Your task to perform on an android device: Add usb-a to usb-b to the cart on target.com, then select checkout. Image 0: 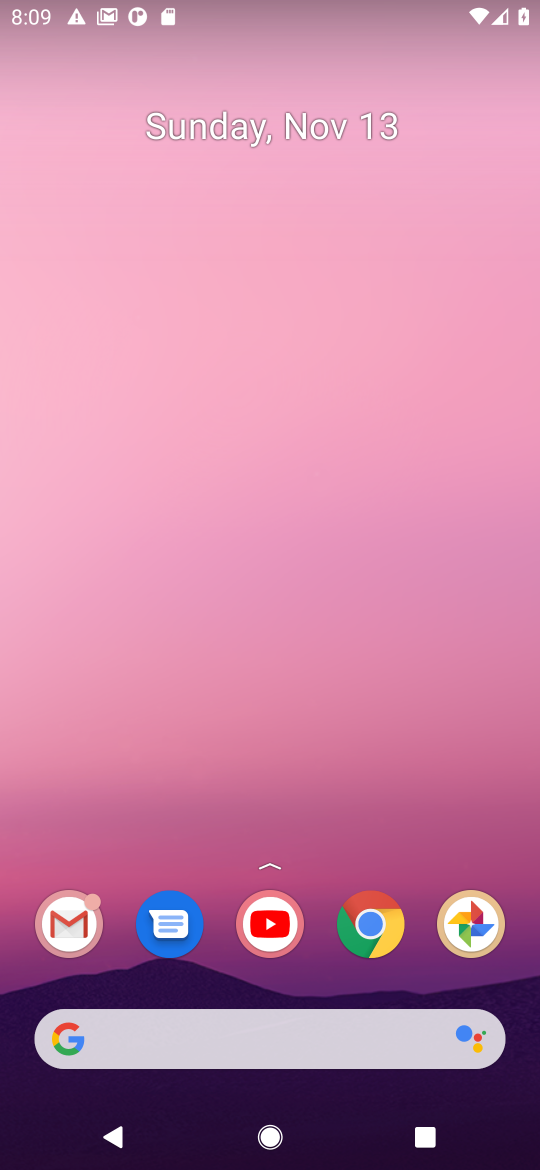
Step 0: click (377, 936)
Your task to perform on an android device: Add usb-a to usb-b to the cart on target.com, then select checkout. Image 1: 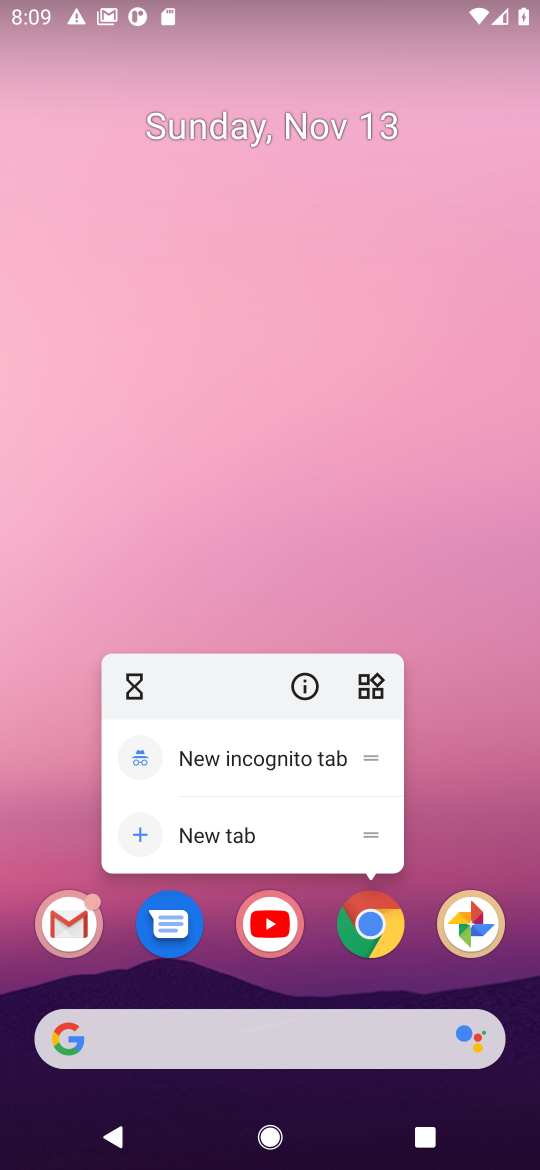
Step 1: click (365, 932)
Your task to perform on an android device: Add usb-a to usb-b to the cart on target.com, then select checkout. Image 2: 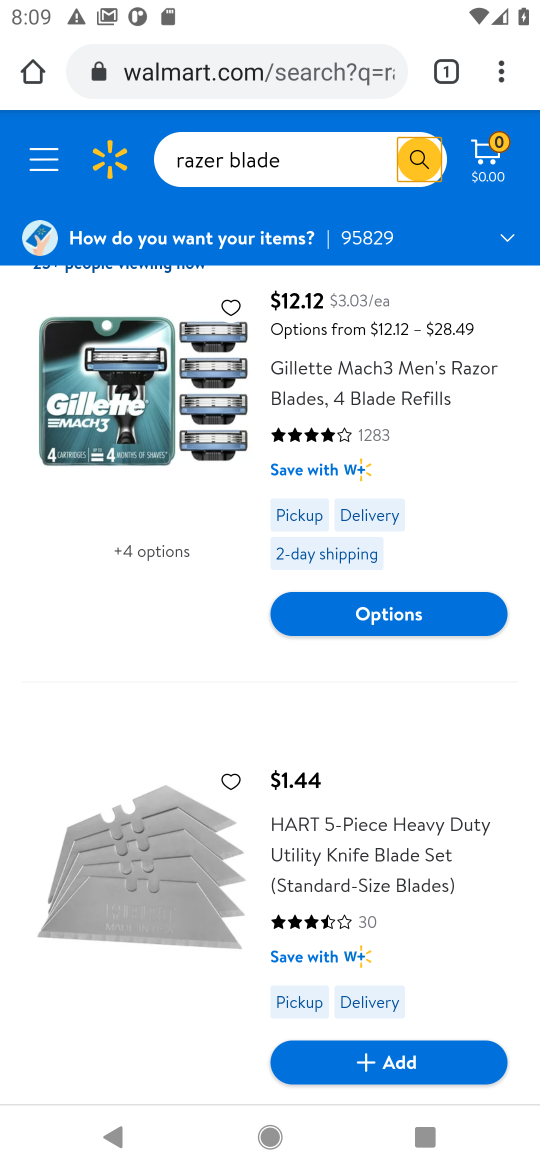
Step 2: click (281, 52)
Your task to perform on an android device: Add usb-a to usb-b to the cart on target.com, then select checkout. Image 3: 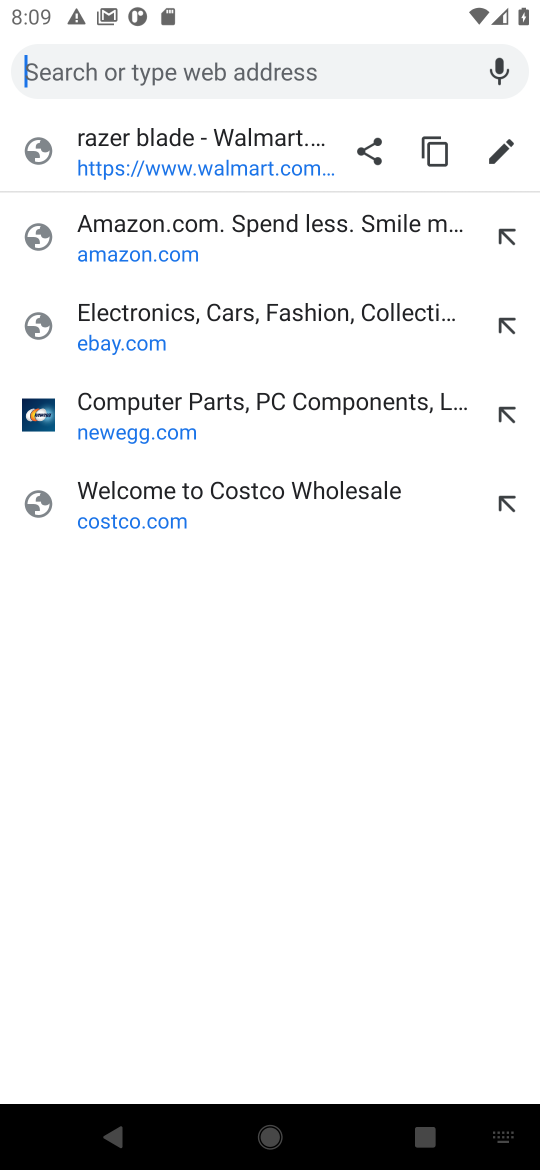
Step 3: type "target.com"
Your task to perform on an android device: Add usb-a to usb-b to the cart on target.com, then select checkout. Image 4: 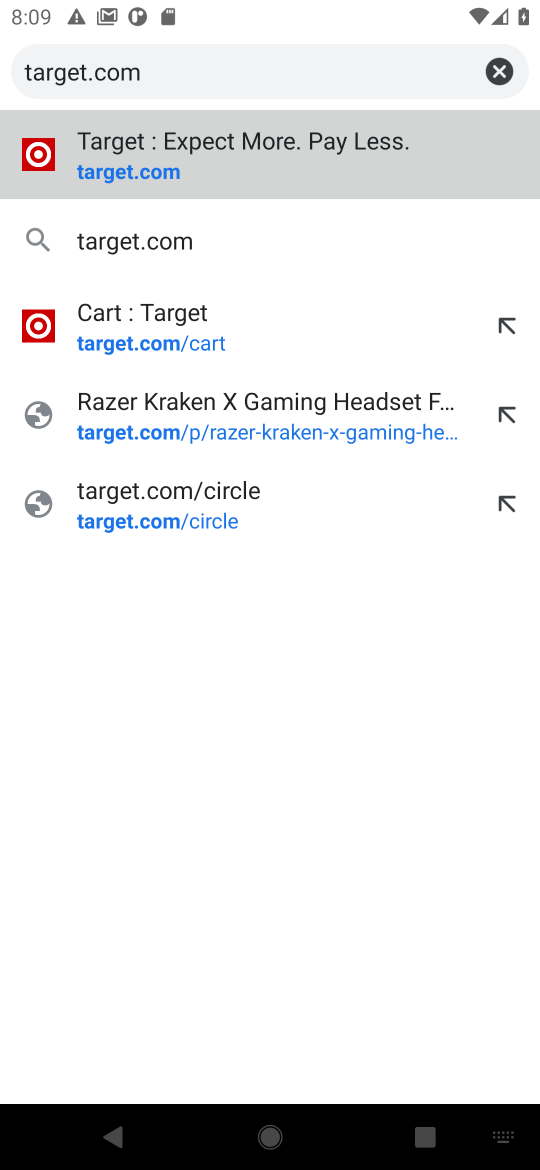
Step 4: click (140, 171)
Your task to perform on an android device: Add usb-a to usb-b to the cart on target.com, then select checkout. Image 5: 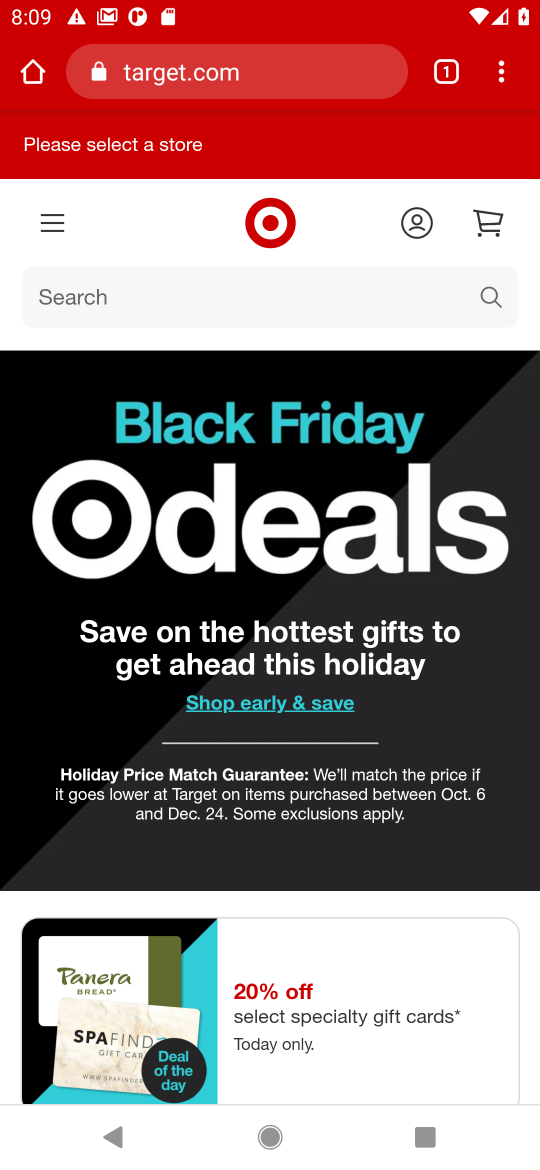
Step 5: click (493, 307)
Your task to perform on an android device: Add usb-a to usb-b to the cart on target.com, then select checkout. Image 6: 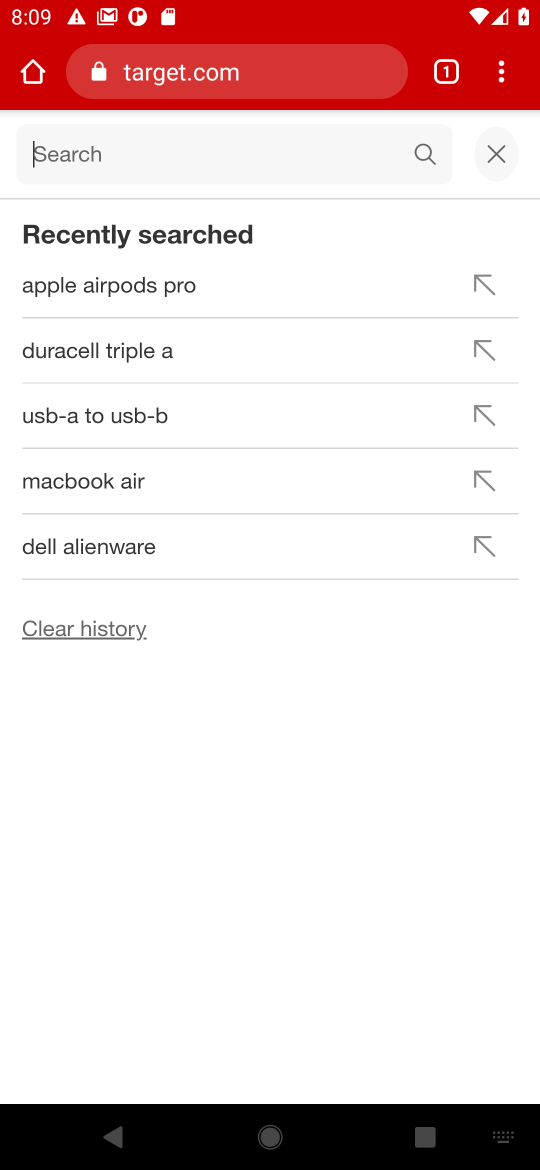
Step 6: type " usb-a to usb-b"
Your task to perform on an android device: Add usb-a to usb-b to the cart on target.com, then select checkout. Image 7: 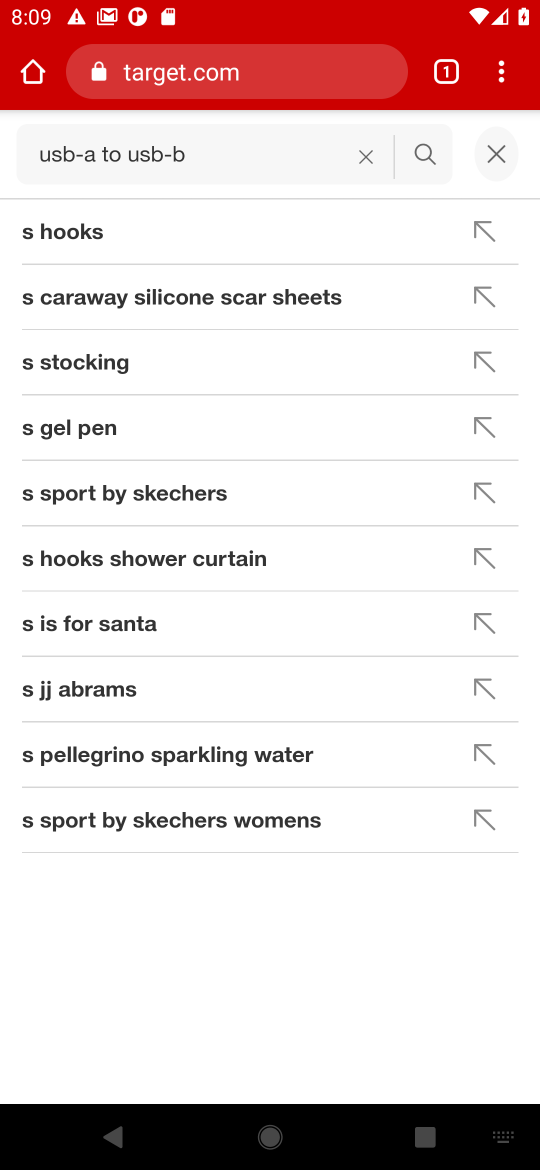
Step 7: click (416, 156)
Your task to perform on an android device: Add usb-a to usb-b to the cart on target.com, then select checkout. Image 8: 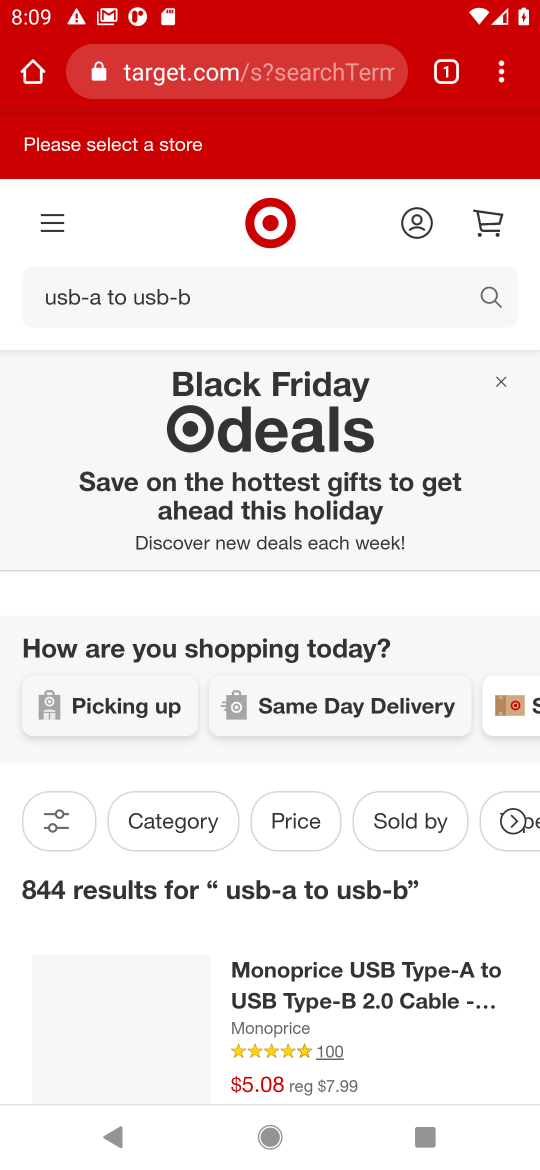
Step 8: drag from (186, 883) to (234, 333)
Your task to perform on an android device: Add usb-a to usb-b to the cart on target.com, then select checkout. Image 9: 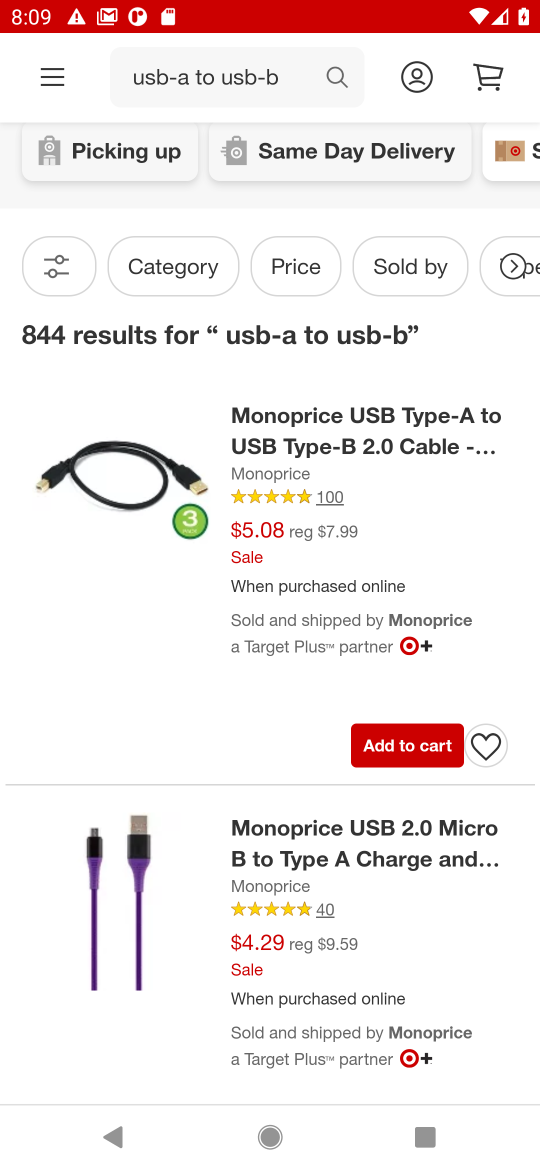
Step 9: click (400, 744)
Your task to perform on an android device: Add usb-a to usb-b to the cart on target.com, then select checkout. Image 10: 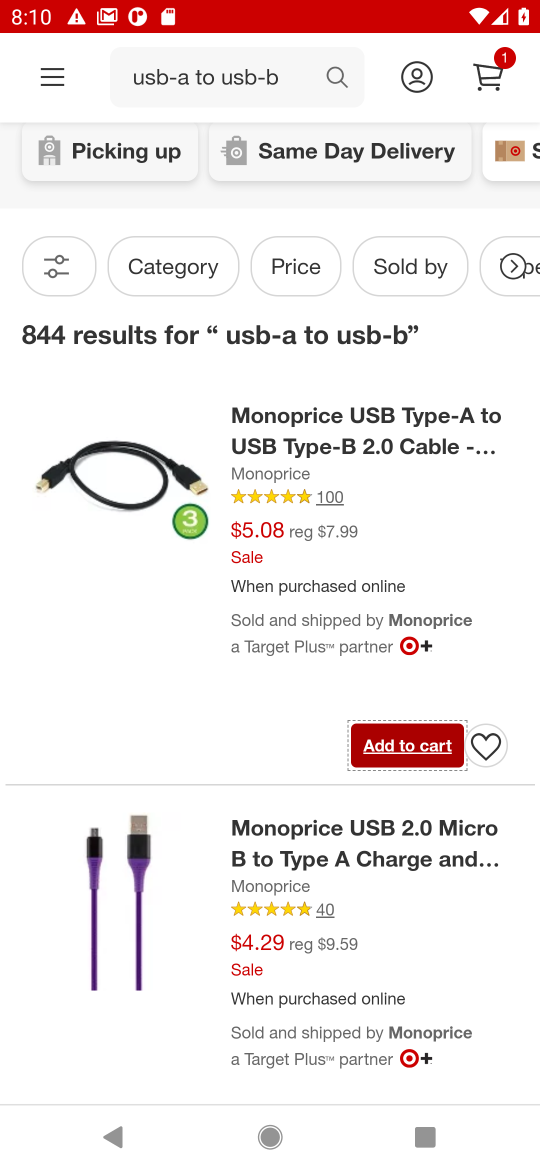
Step 10: click (496, 78)
Your task to perform on an android device: Add usb-a to usb-b to the cart on target.com, then select checkout. Image 11: 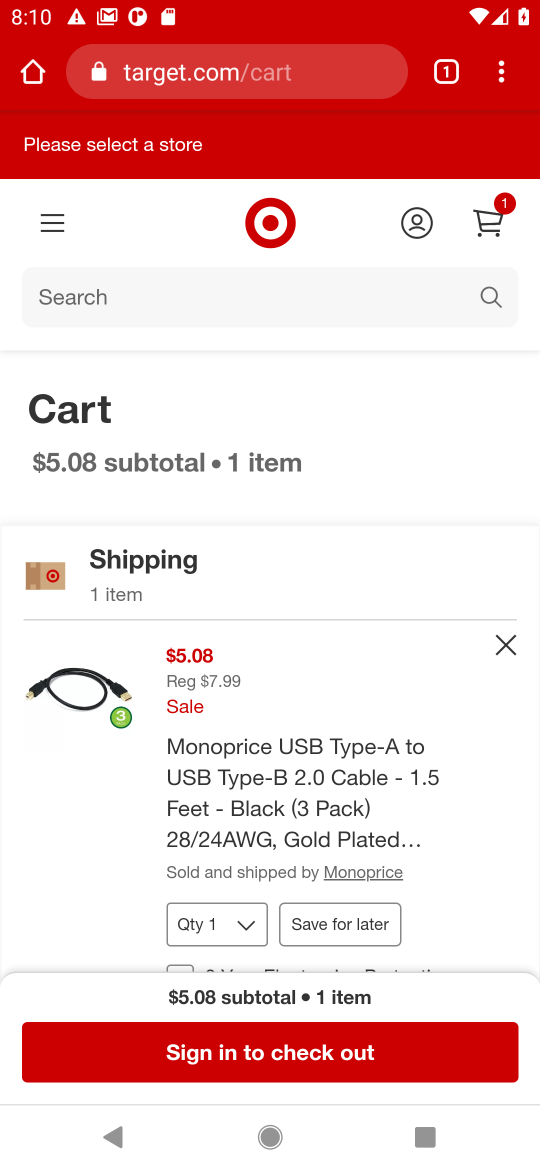
Step 11: click (244, 1056)
Your task to perform on an android device: Add usb-a to usb-b to the cart on target.com, then select checkout. Image 12: 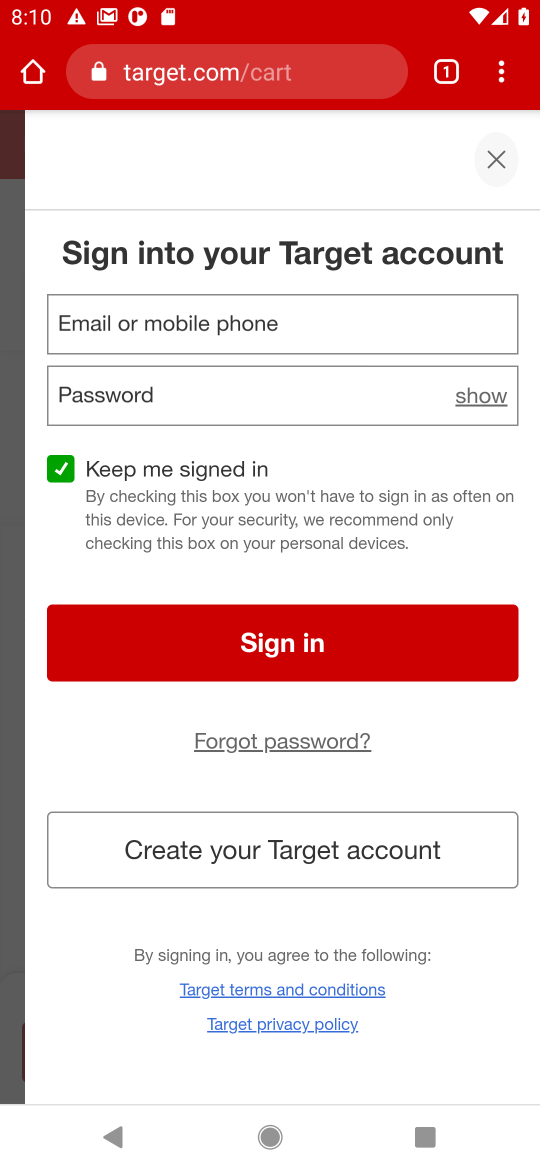
Step 12: task complete